Your task to perform on an android device: add a contact Image 0: 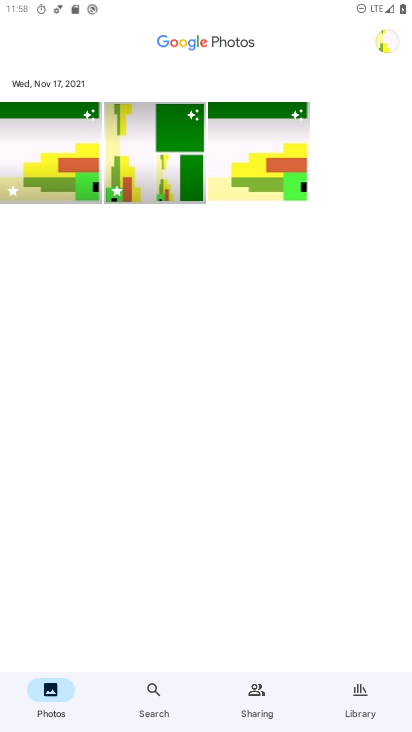
Step 0: press home button
Your task to perform on an android device: add a contact Image 1: 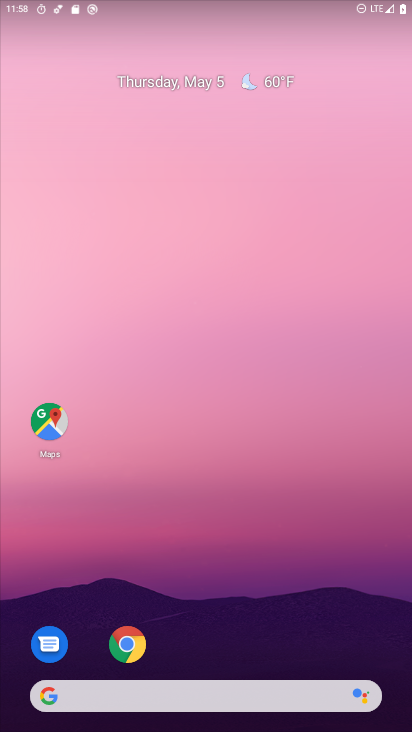
Step 1: drag from (364, 609) to (334, 82)
Your task to perform on an android device: add a contact Image 2: 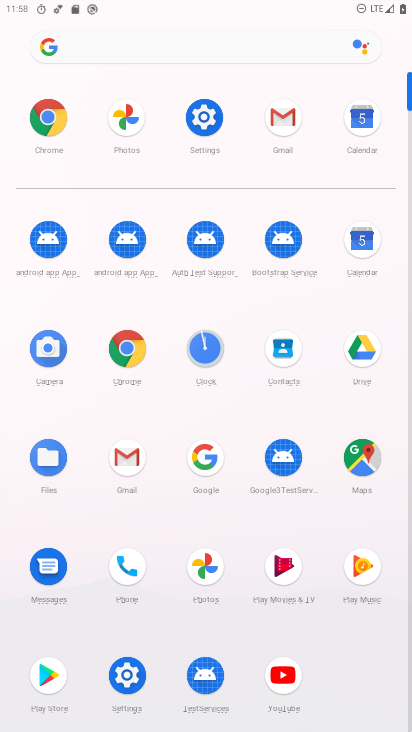
Step 2: click (280, 351)
Your task to perform on an android device: add a contact Image 3: 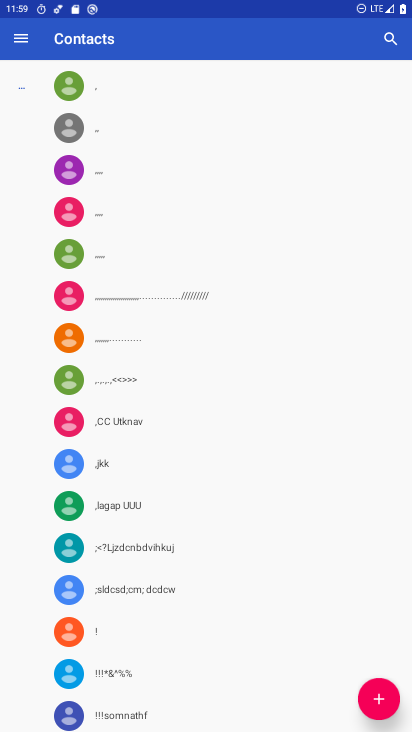
Step 3: task complete